Your task to perform on an android device: check data usage Image 0: 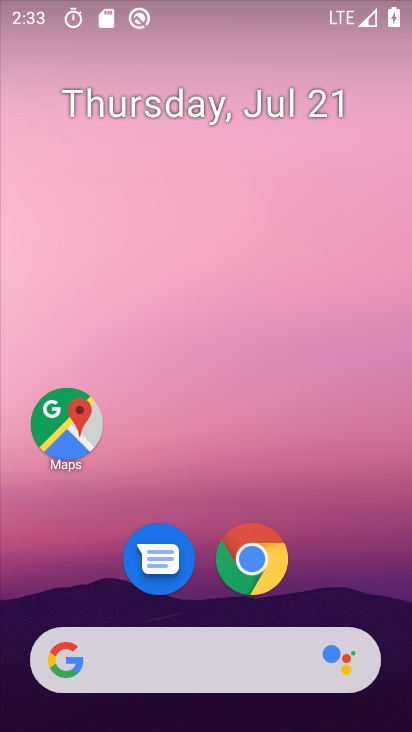
Step 0: drag from (370, 571) to (375, 70)
Your task to perform on an android device: check data usage Image 1: 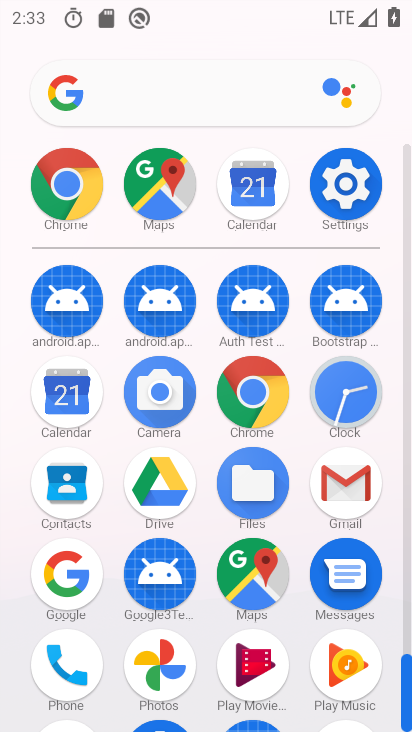
Step 1: click (358, 186)
Your task to perform on an android device: check data usage Image 2: 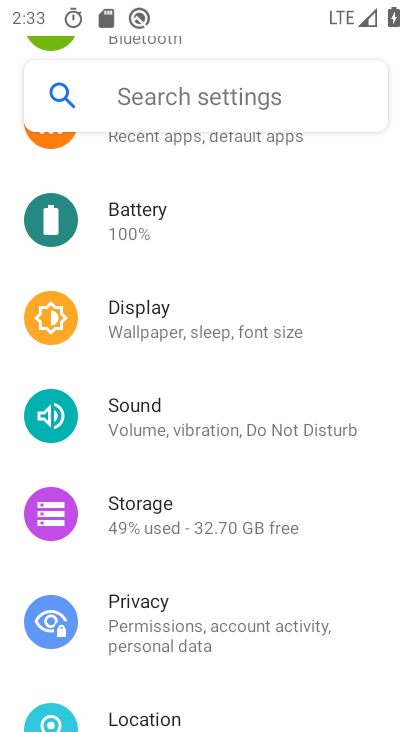
Step 2: drag from (359, 245) to (364, 315)
Your task to perform on an android device: check data usage Image 3: 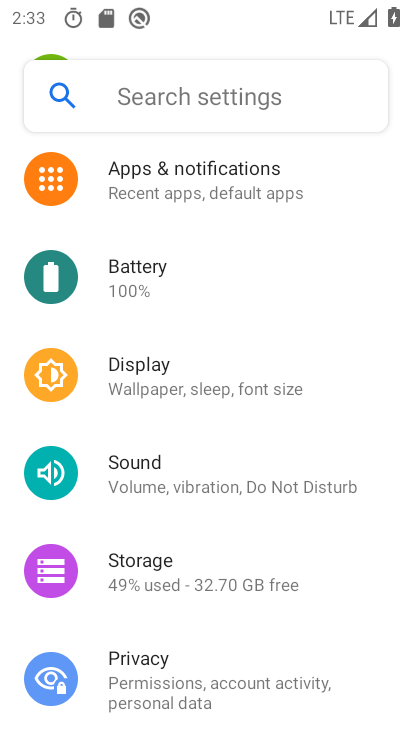
Step 3: drag from (346, 238) to (352, 395)
Your task to perform on an android device: check data usage Image 4: 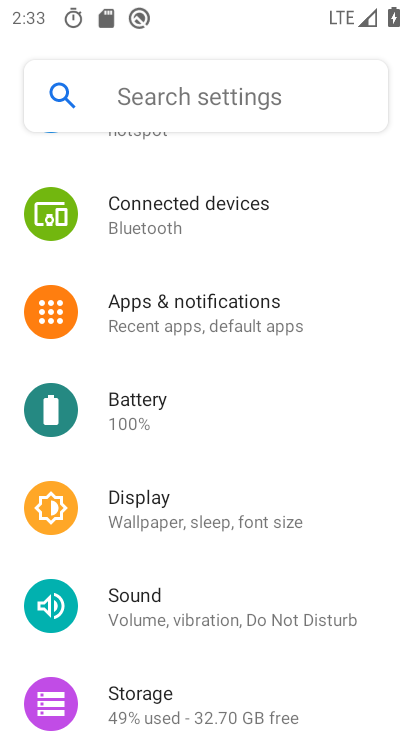
Step 4: drag from (352, 234) to (354, 393)
Your task to perform on an android device: check data usage Image 5: 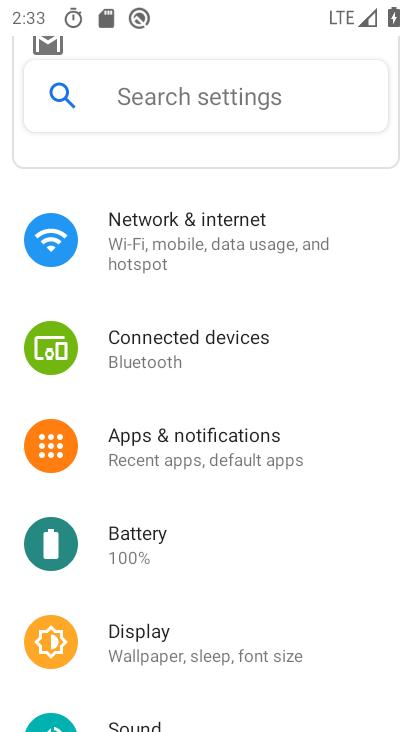
Step 5: drag from (358, 255) to (360, 426)
Your task to perform on an android device: check data usage Image 6: 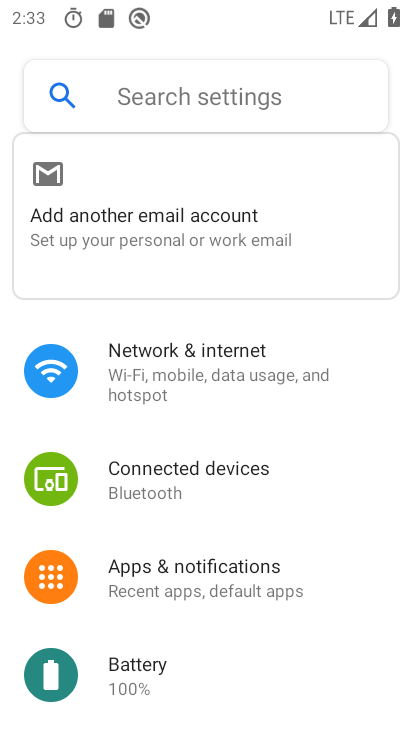
Step 6: drag from (356, 209) to (355, 375)
Your task to perform on an android device: check data usage Image 7: 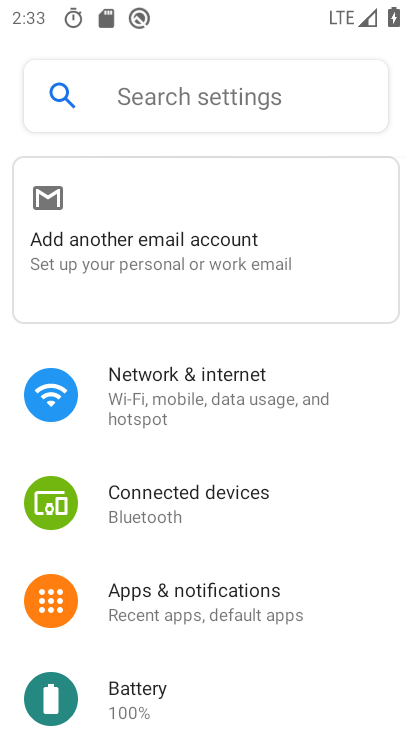
Step 7: click (305, 408)
Your task to perform on an android device: check data usage Image 8: 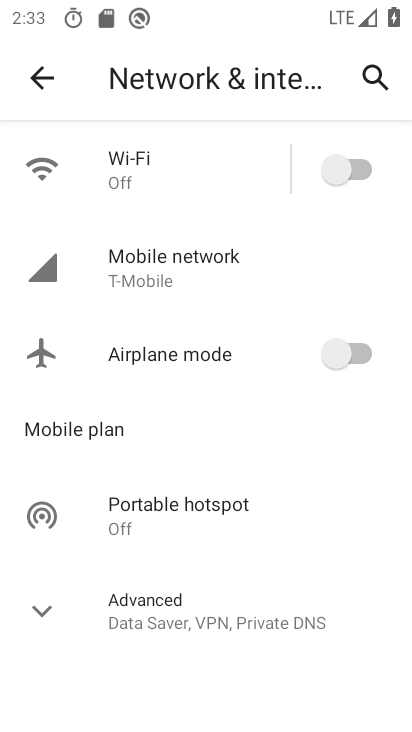
Step 8: click (218, 273)
Your task to perform on an android device: check data usage Image 9: 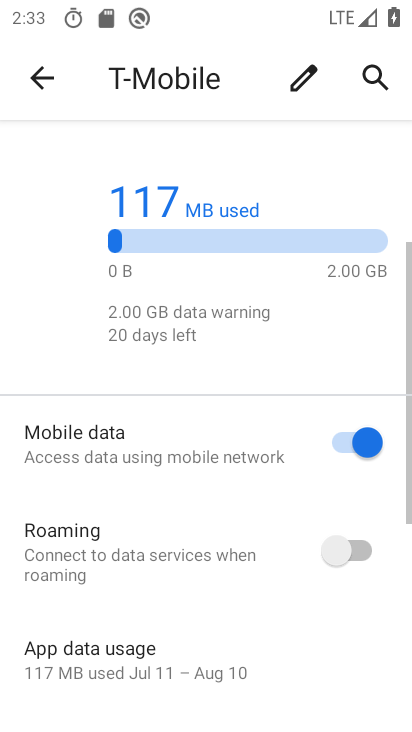
Step 9: drag from (259, 444) to (263, 256)
Your task to perform on an android device: check data usage Image 10: 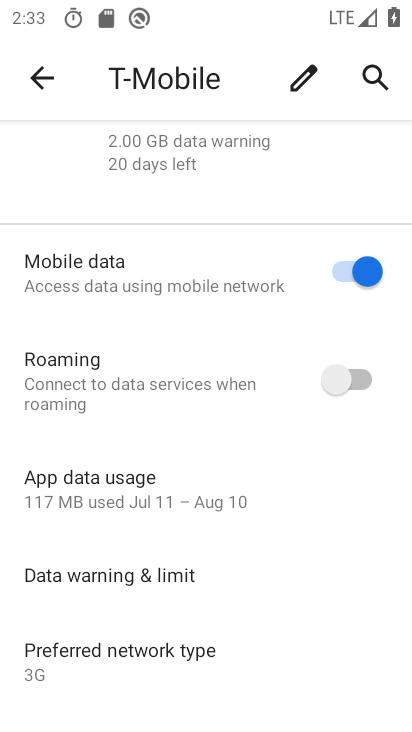
Step 10: drag from (276, 494) to (276, 337)
Your task to perform on an android device: check data usage Image 11: 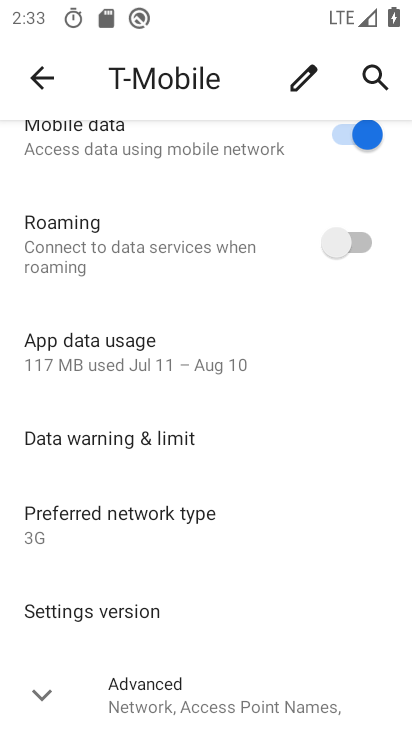
Step 11: click (263, 363)
Your task to perform on an android device: check data usage Image 12: 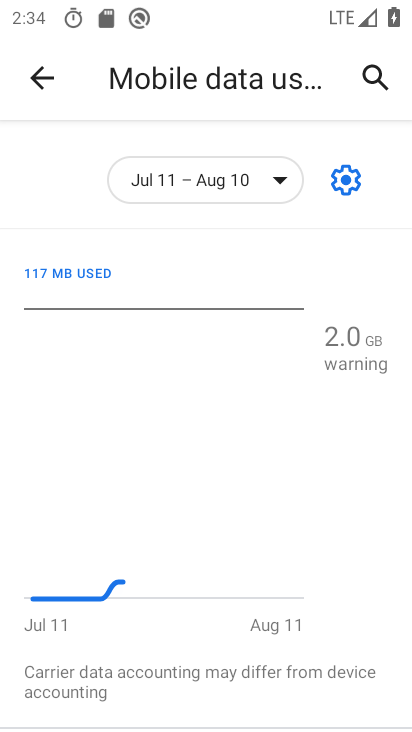
Step 12: task complete